Your task to perform on an android device: open the mobile data screen to see how much data has been used Image 0: 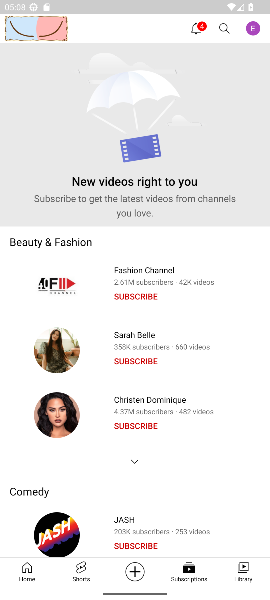
Step 0: press home button
Your task to perform on an android device: open the mobile data screen to see how much data has been used Image 1: 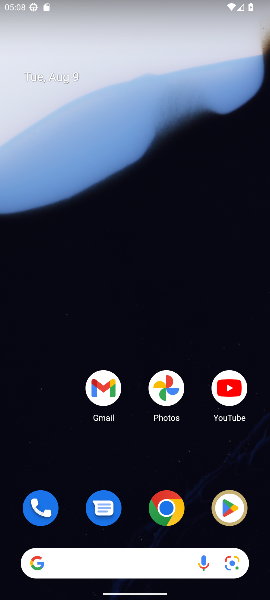
Step 1: drag from (134, 449) to (164, 135)
Your task to perform on an android device: open the mobile data screen to see how much data has been used Image 2: 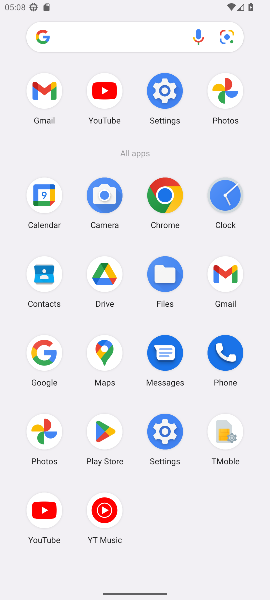
Step 2: click (165, 425)
Your task to perform on an android device: open the mobile data screen to see how much data has been used Image 3: 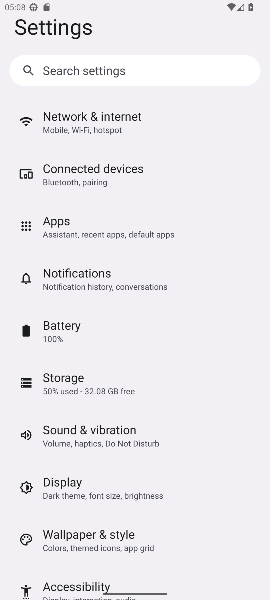
Step 3: click (145, 126)
Your task to perform on an android device: open the mobile data screen to see how much data has been used Image 4: 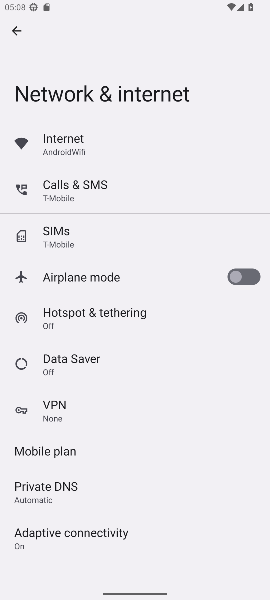
Step 4: click (72, 145)
Your task to perform on an android device: open the mobile data screen to see how much data has been used Image 5: 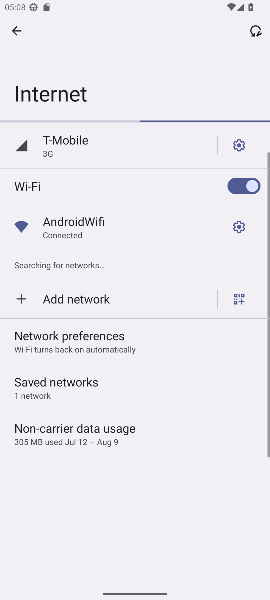
Step 5: click (84, 427)
Your task to perform on an android device: open the mobile data screen to see how much data has been used Image 6: 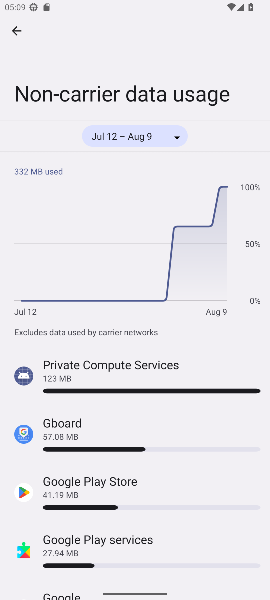
Step 6: task complete